Your task to perform on an android device: Toggle the flashlight Image 0: 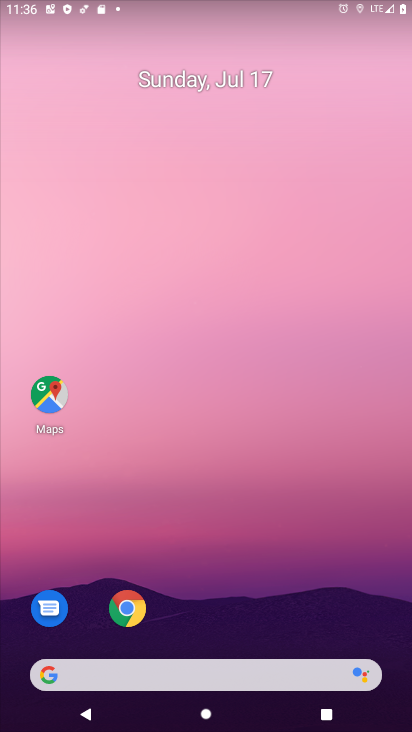
Step 0: drag from (190, 647) to (198, 108)
Your task to perform on an android device: Toggle the flashlight Image 1: 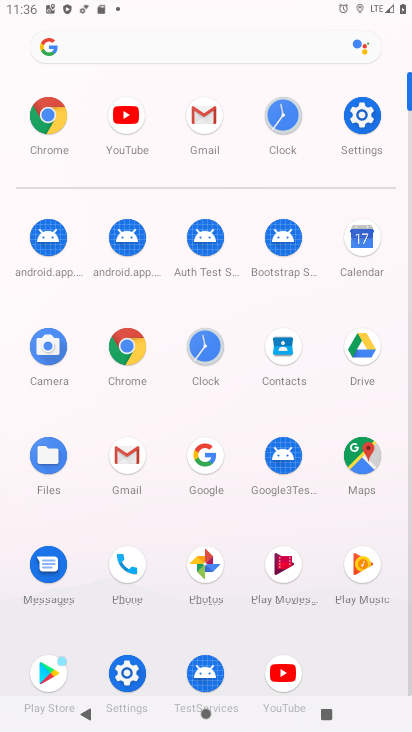
Step 1: click (121, 668)
Your task to perform on an android device: Toggle the flashlight Image 2: 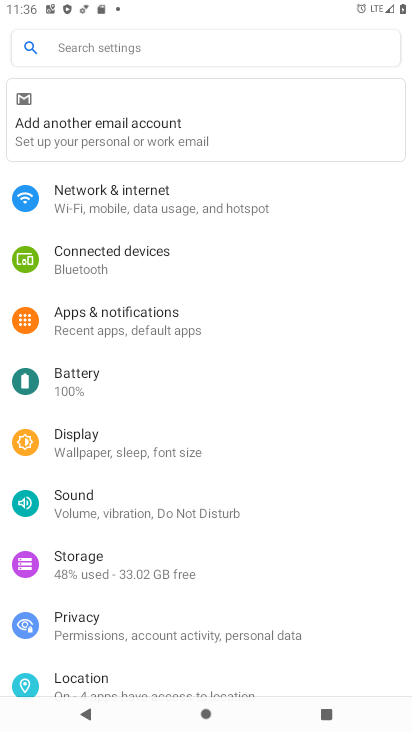
Step 2: task complete